Your task to perform on an android device: Open CNN.com Image 0: 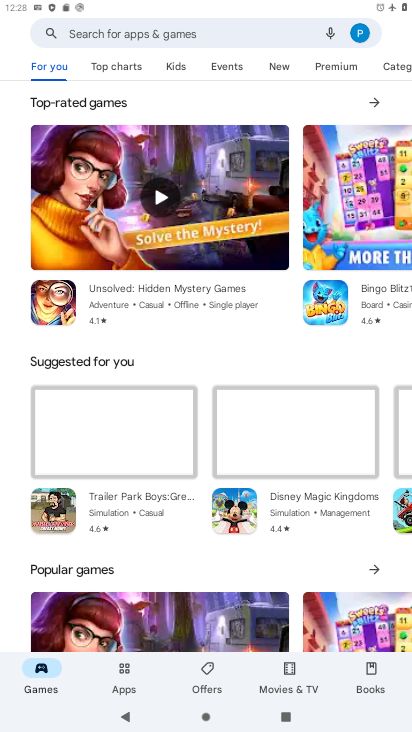
Step 0: press home button
Your task to perform on an android device: Open CNN.com Image 1: 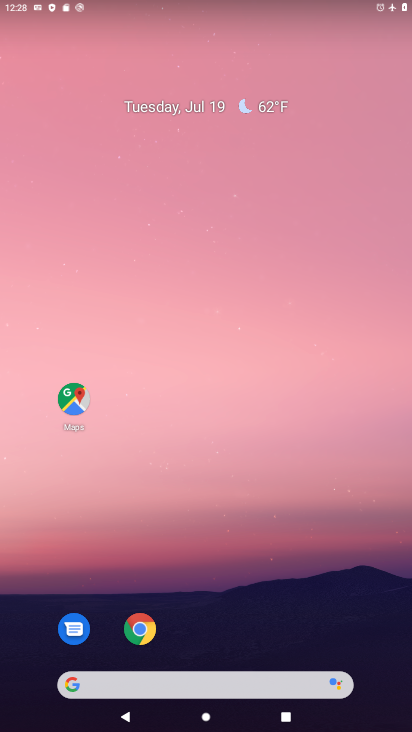
Step 1: drag from (198, 670) to (181, 20)
Your task to perform on an android device: Open CNN.com Image 2: 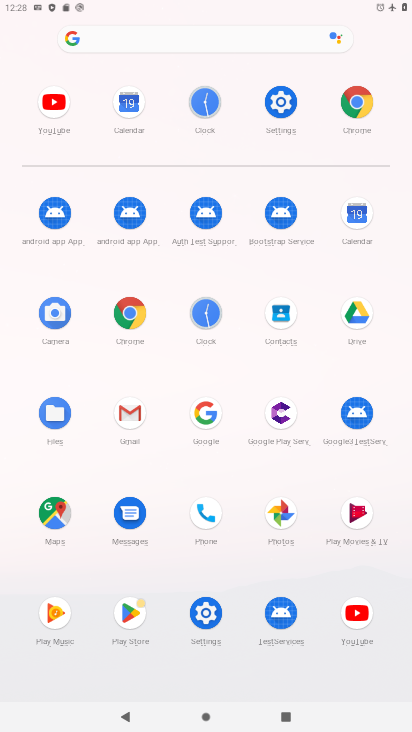
Step 2: click (129, 314)
Your task to perform on an android device: Open CNN.com Image 3: 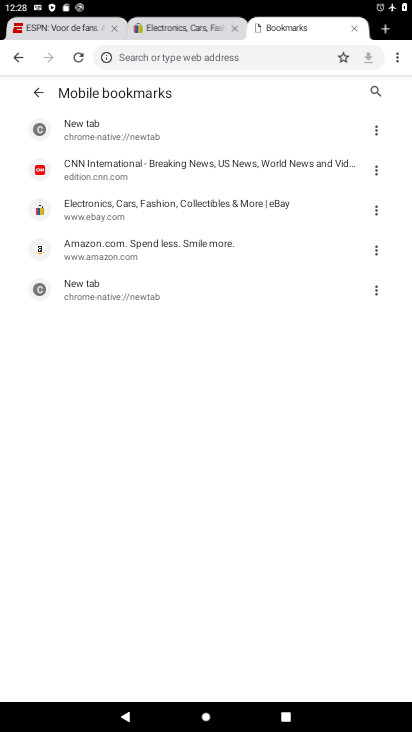
Step 3: click (102, 157)
Your task to perform on an android device: Open CNN.com Image 4: 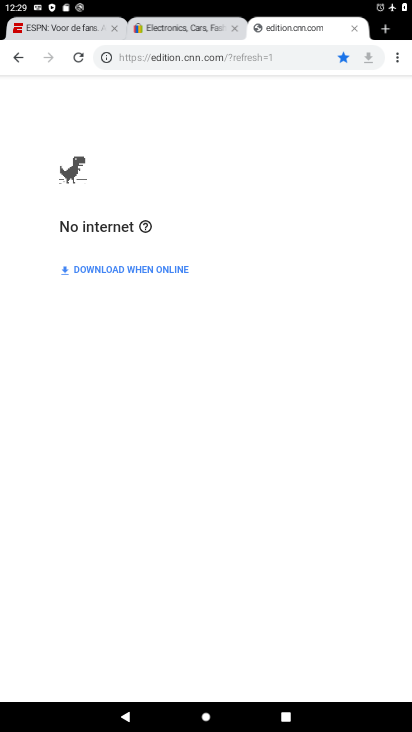
Step 4: task complete